Your task to perform on an android device: refresh tabs in the chrome app Image 0: 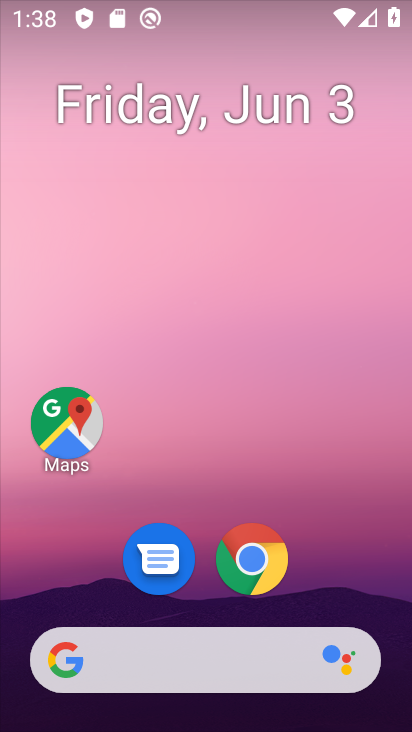
Step 0: click (244, 563)
Your task to perform on an android device: refresh tabs in the chrome app Image 1: 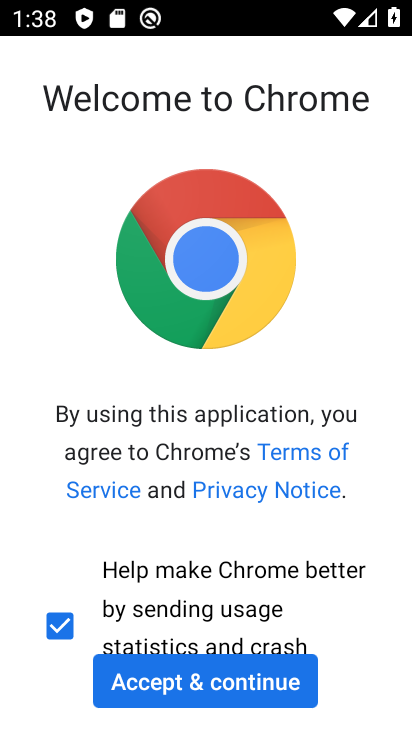
Step 1: click (286, 686)
Your task to perform on an android device: refresh tabs in the chrome app Image 2: 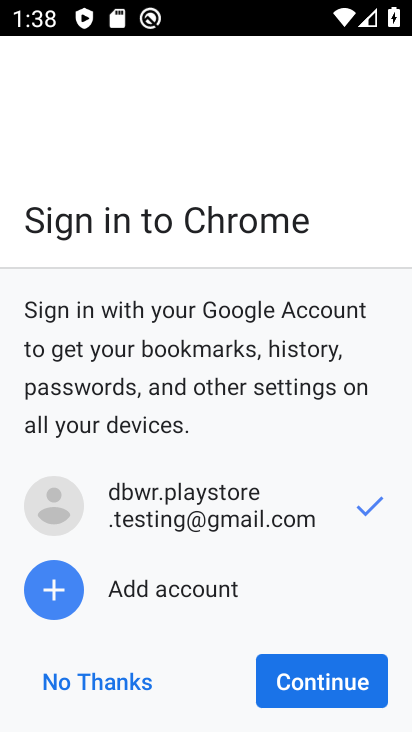
Step 2: click (294, 682)
Your task to perform on an android device: refresh tabs in the chrome app Image 3: 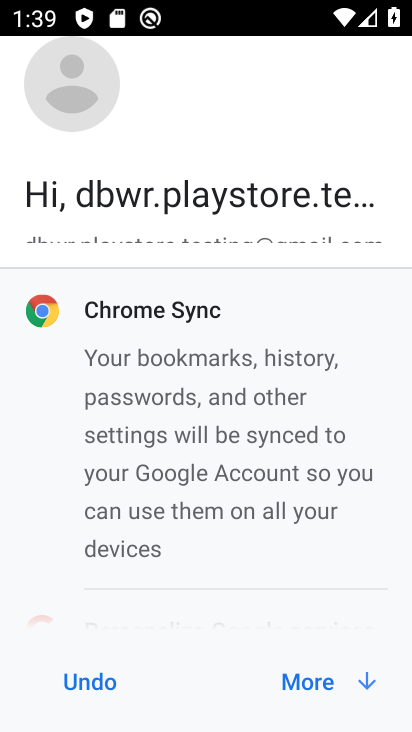
Step 3: click (352, 664)
Your task to perform on an android device: refresh tabs in the chrome app Image 4: 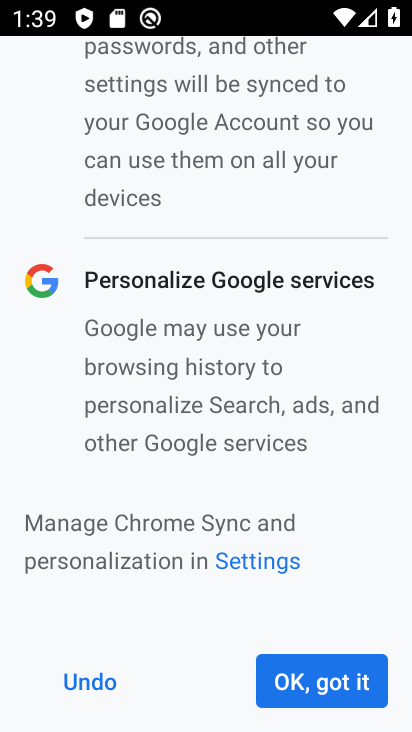
Step 4: click (335, 673)
Your task to perform on an android device: refresh tabs in the chrome app Image 5: 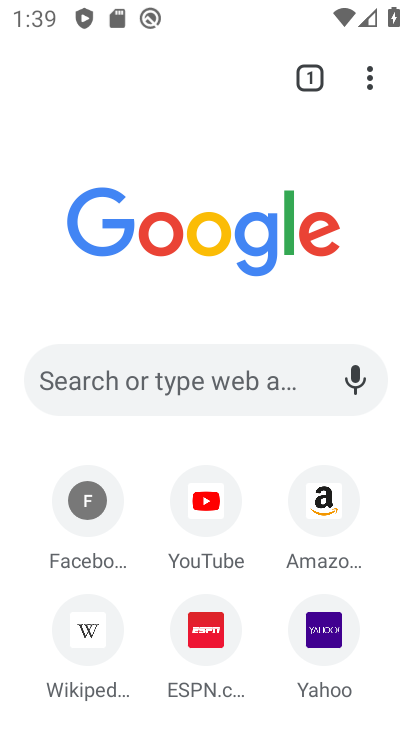
Step 5: click (369, 78)
Your task to perform on an android device: refresh tabs in the chrome app Image 6: 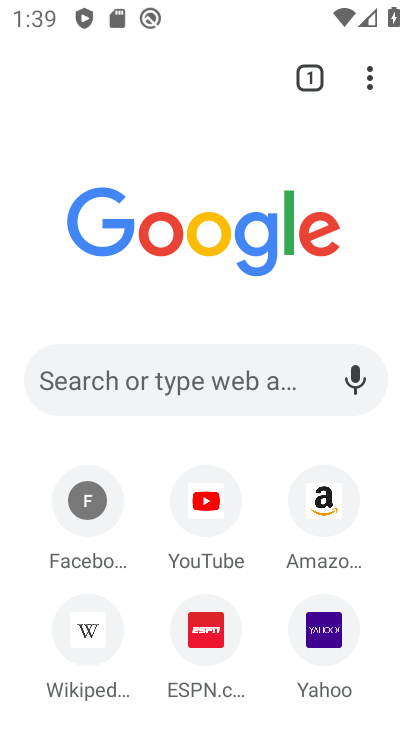
Step 6: task complete